Your task to perform on an android device: open app "Skype" Image 0: 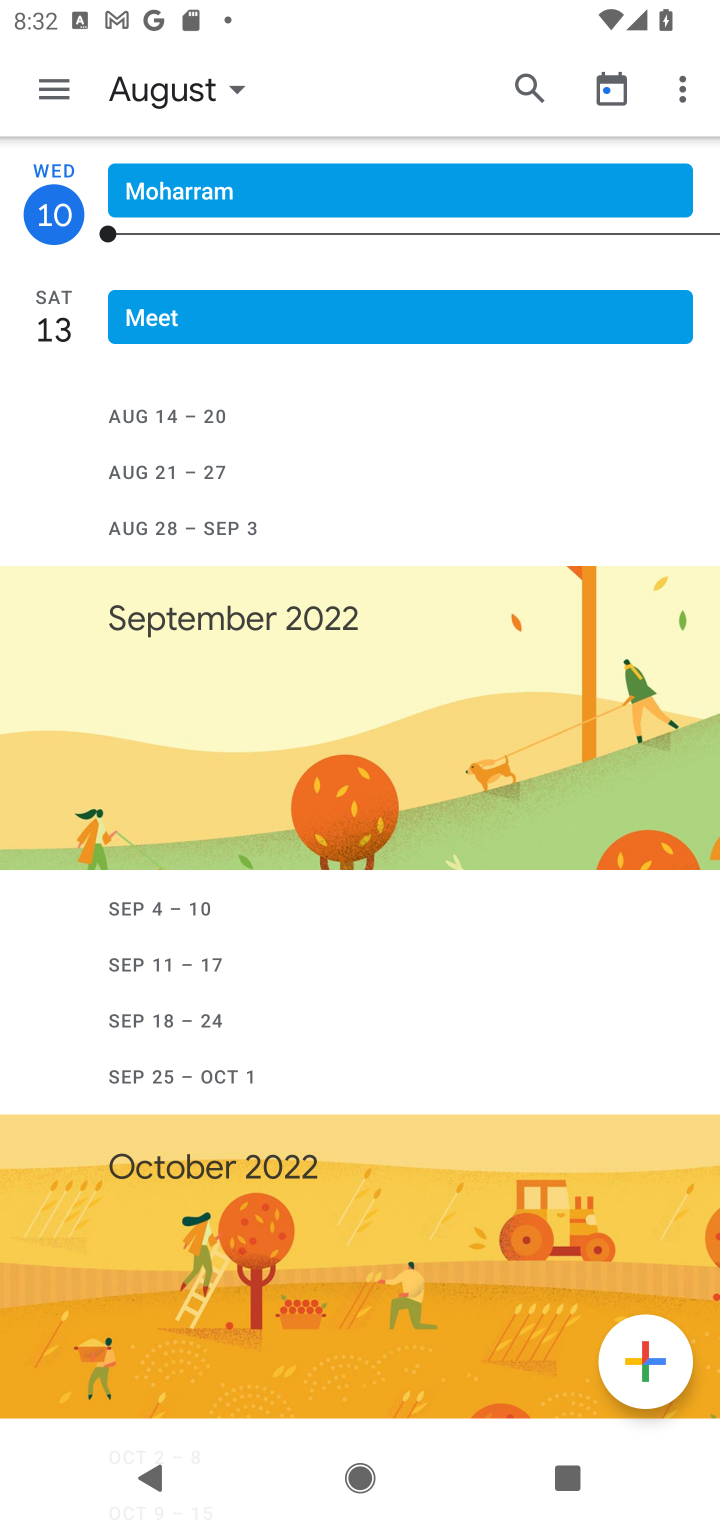
Step 0: press home button
Your task to perform on an android device: open app "Skype" Image 1: 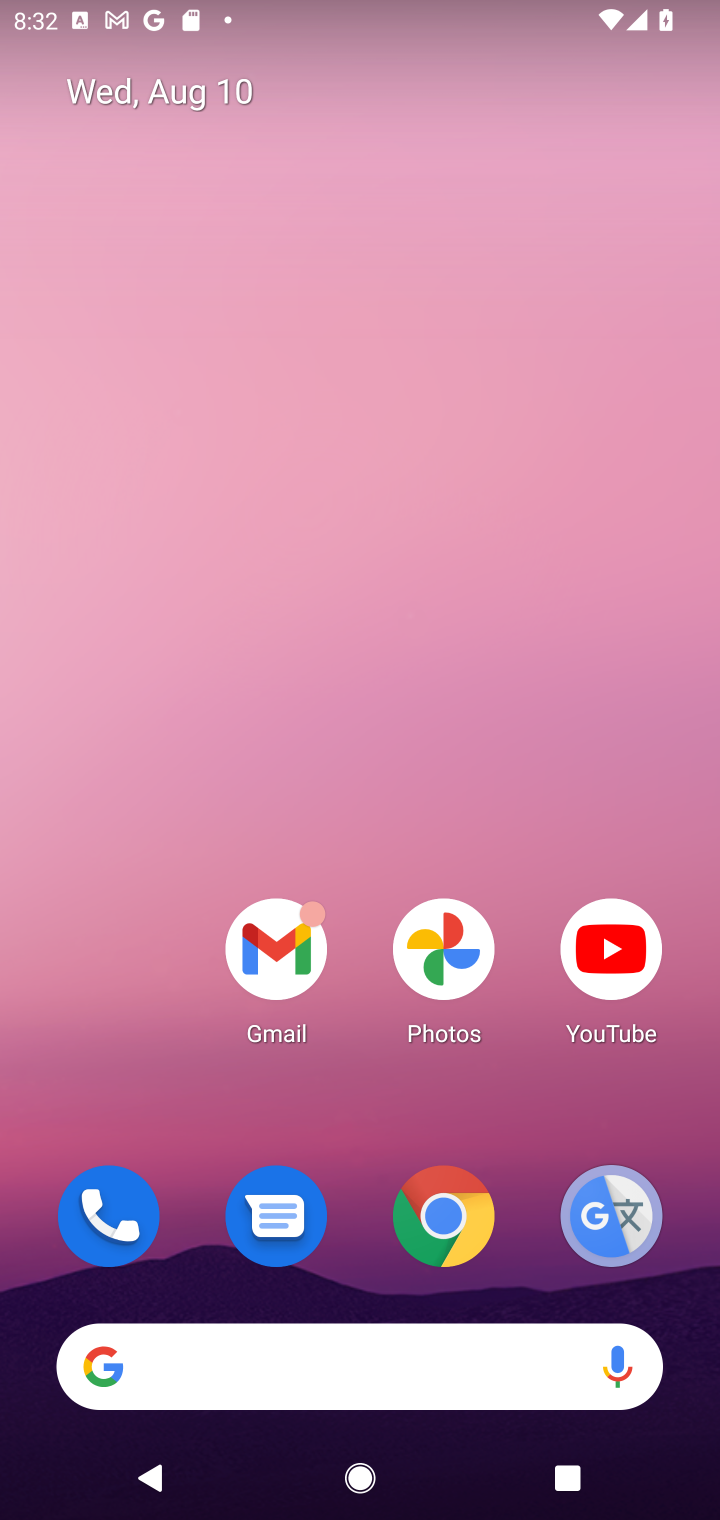
Step 1: drag from (224, 1127) to (373, 193)
Your task to perform on an android device: open app "Skype" Image 2: 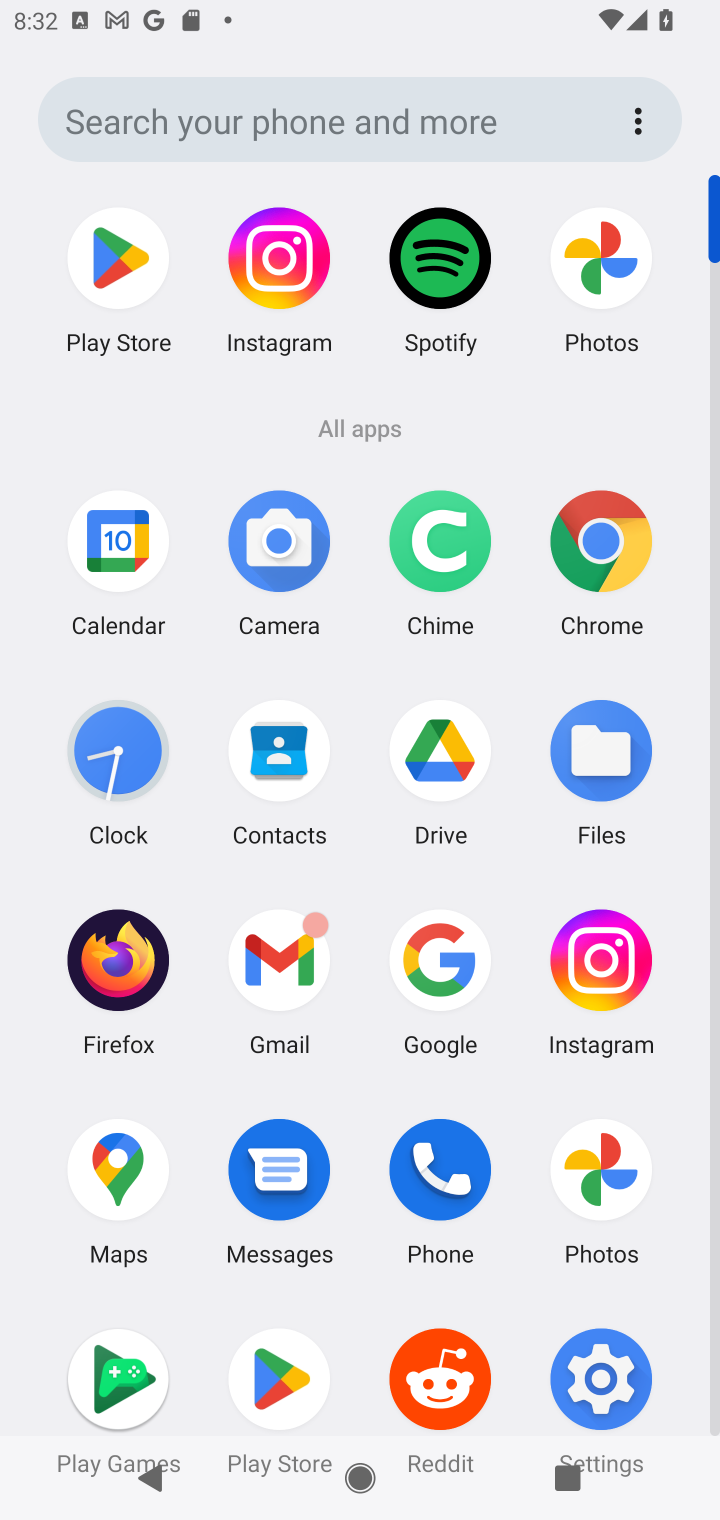
Step 2: click (130, 247)
Your task to perform on an android device: open app "Skype" Image 3: 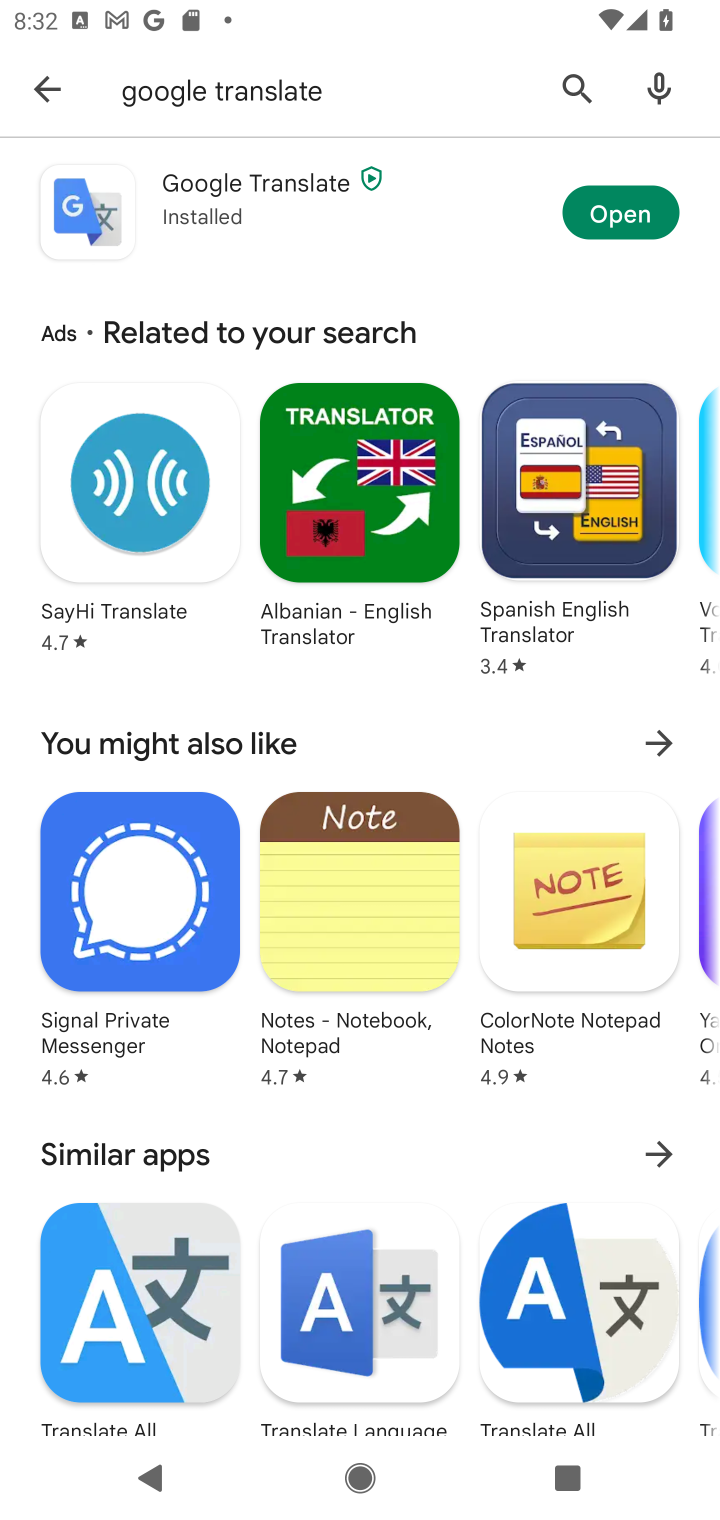
Step 3: click (572, 85)
Your task to perform on an android device: open app "Skype" Image 4: 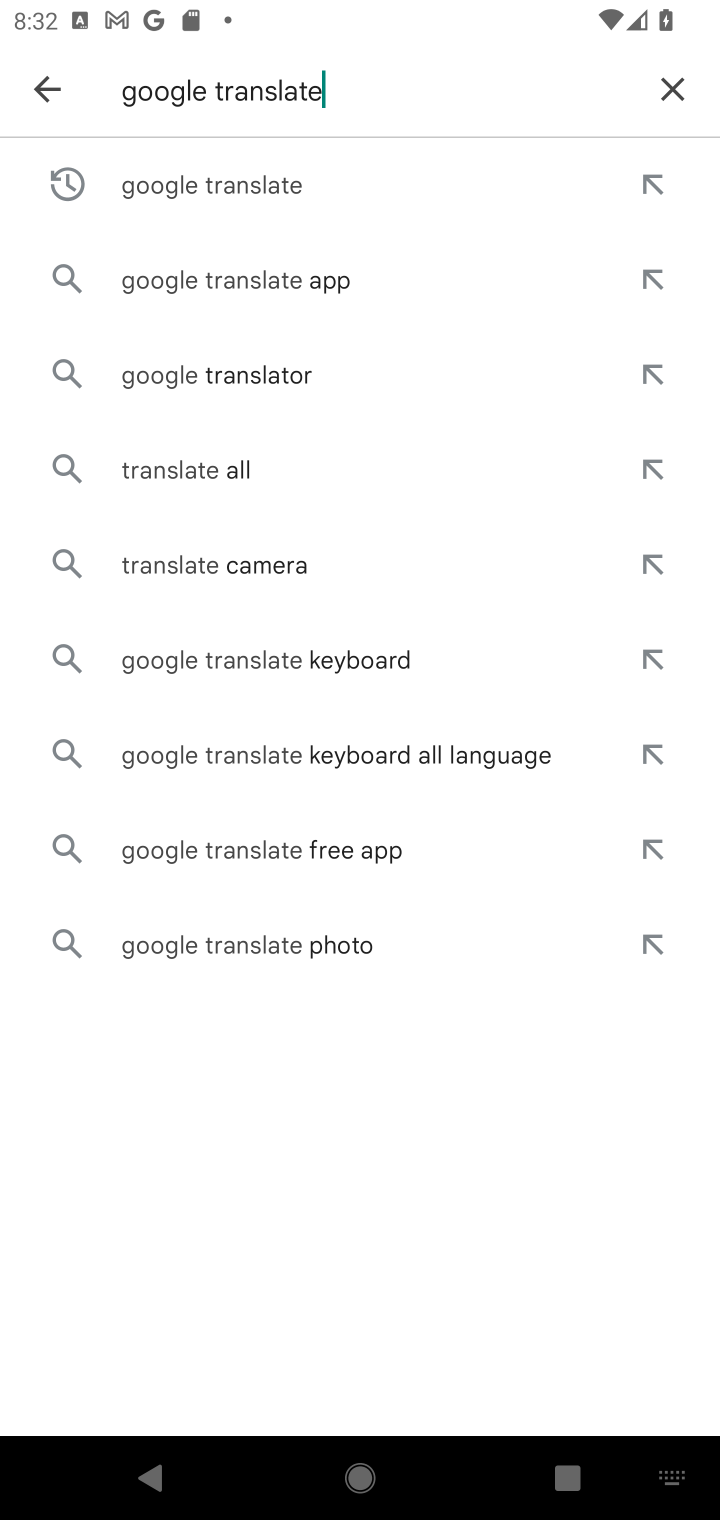
Step 4: click (677, 90)
Your task to perform on an android device: open app "Skype" Image 5: 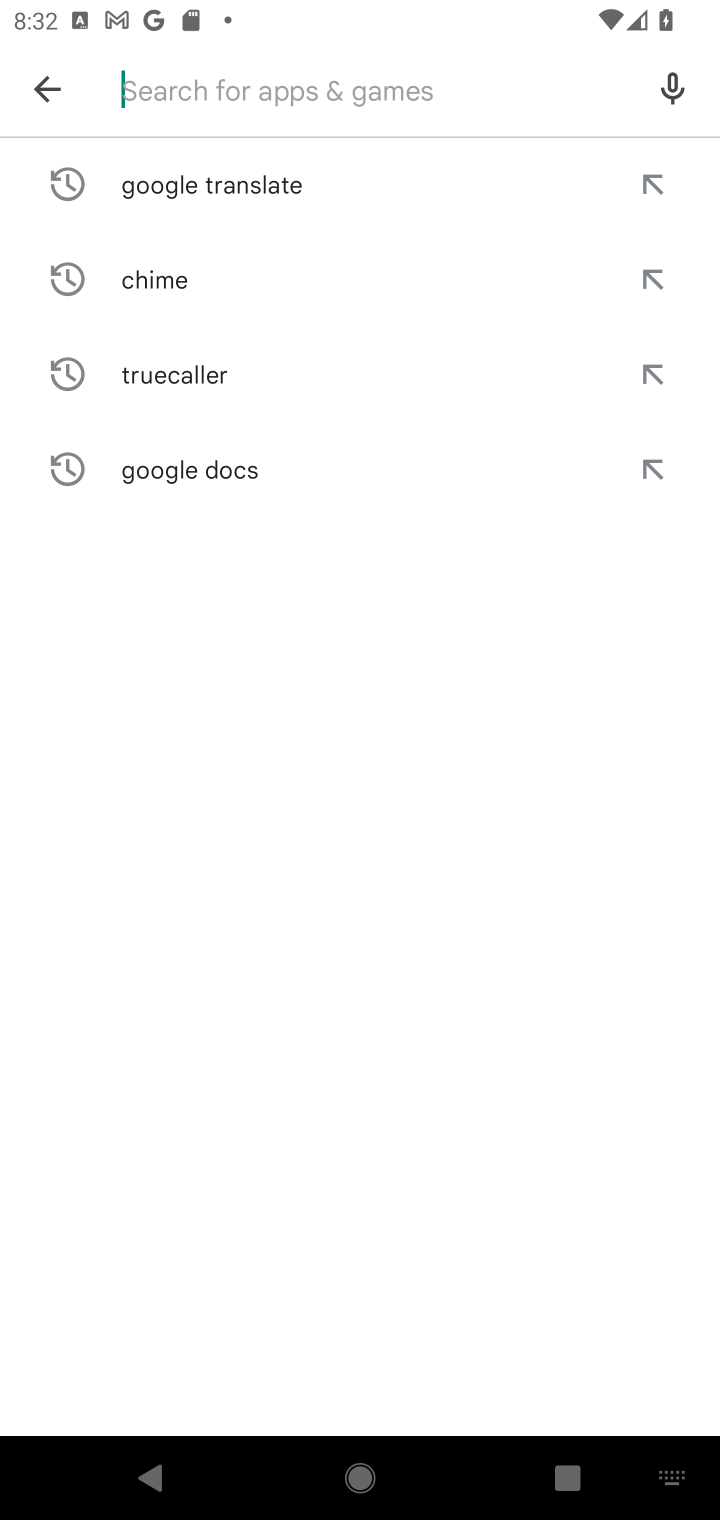
Step 5: click (177, 75)
Your task to perform on an android device: open app "Skype" Image 6: 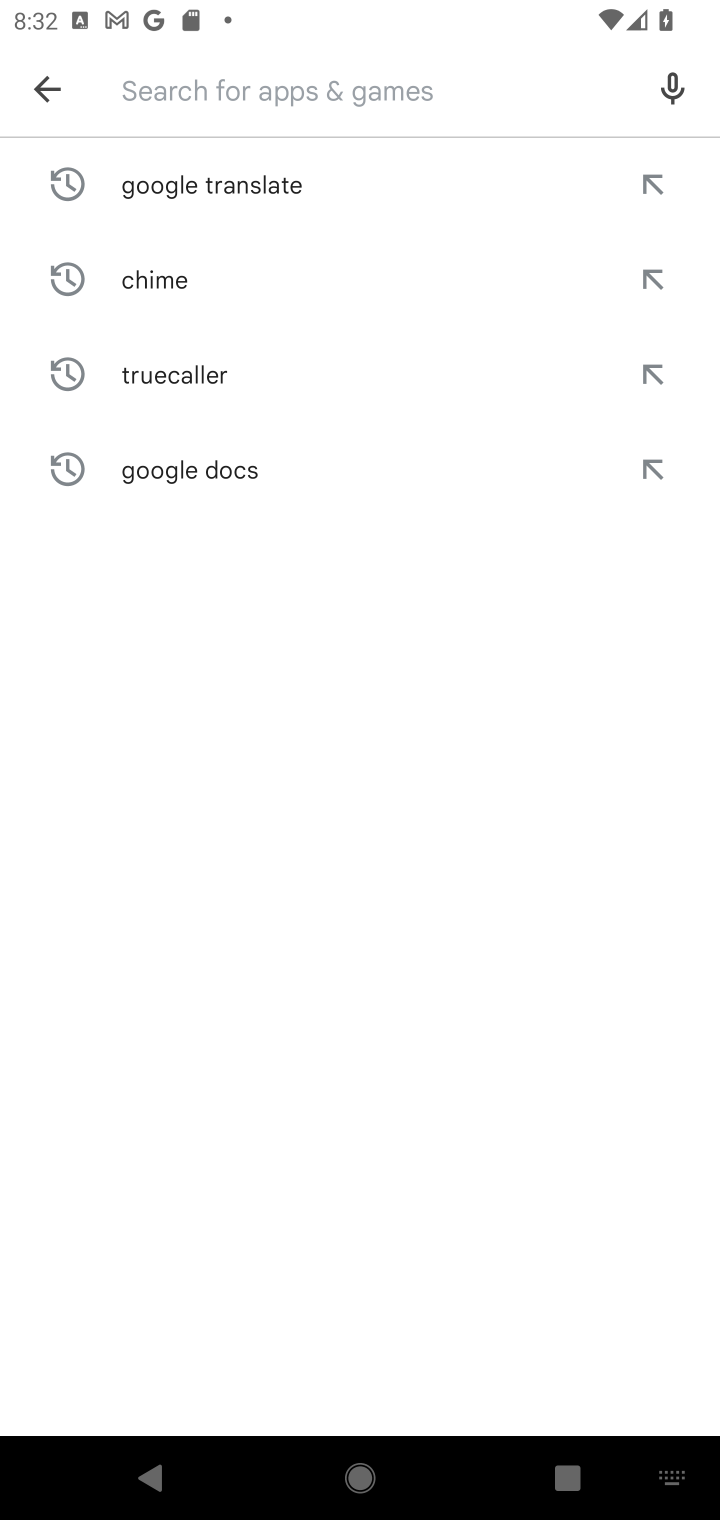
Step 6: click (286, 108)
Your task to perform on an android device: open app "Skype" Image 7: 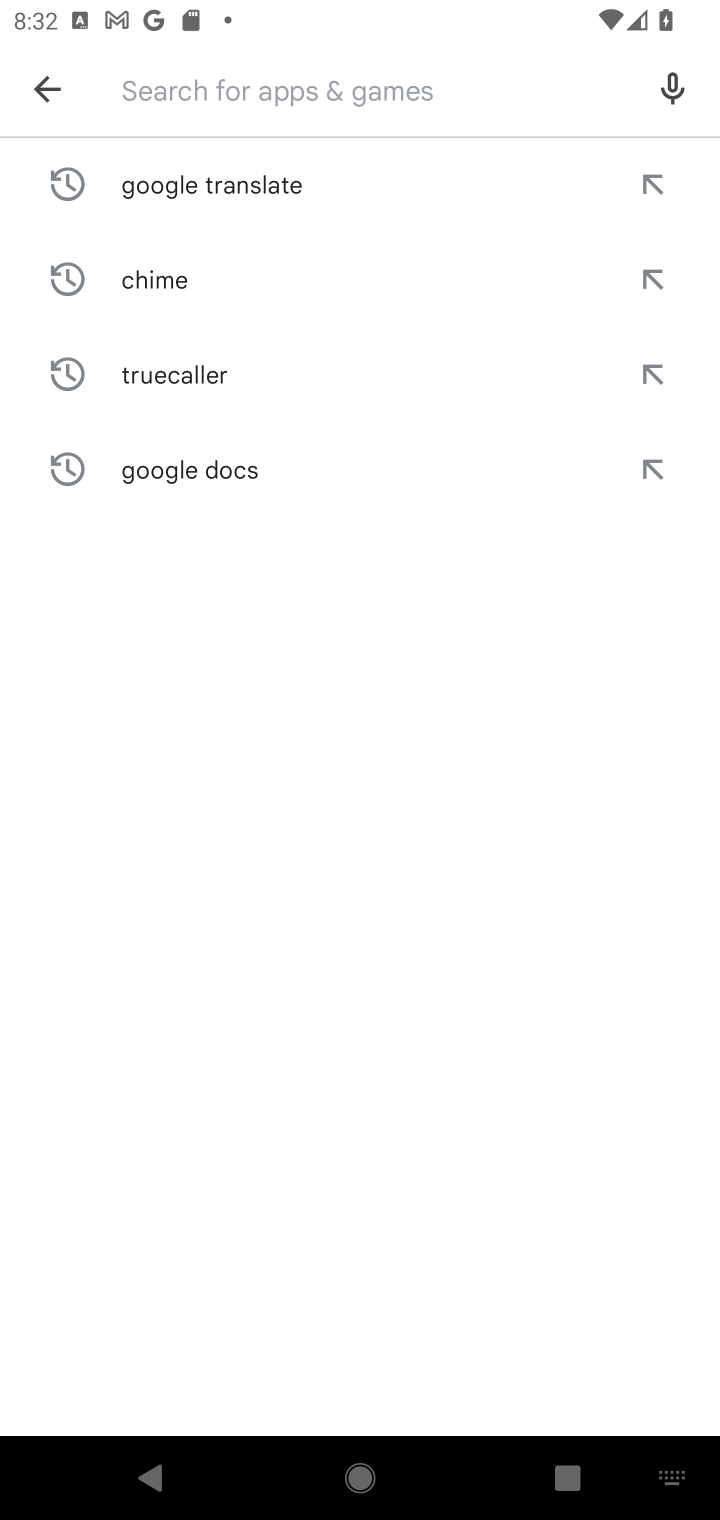
Step 7: type "Skype"
Your task to perform on an android device: open app "Skype" Image 8: 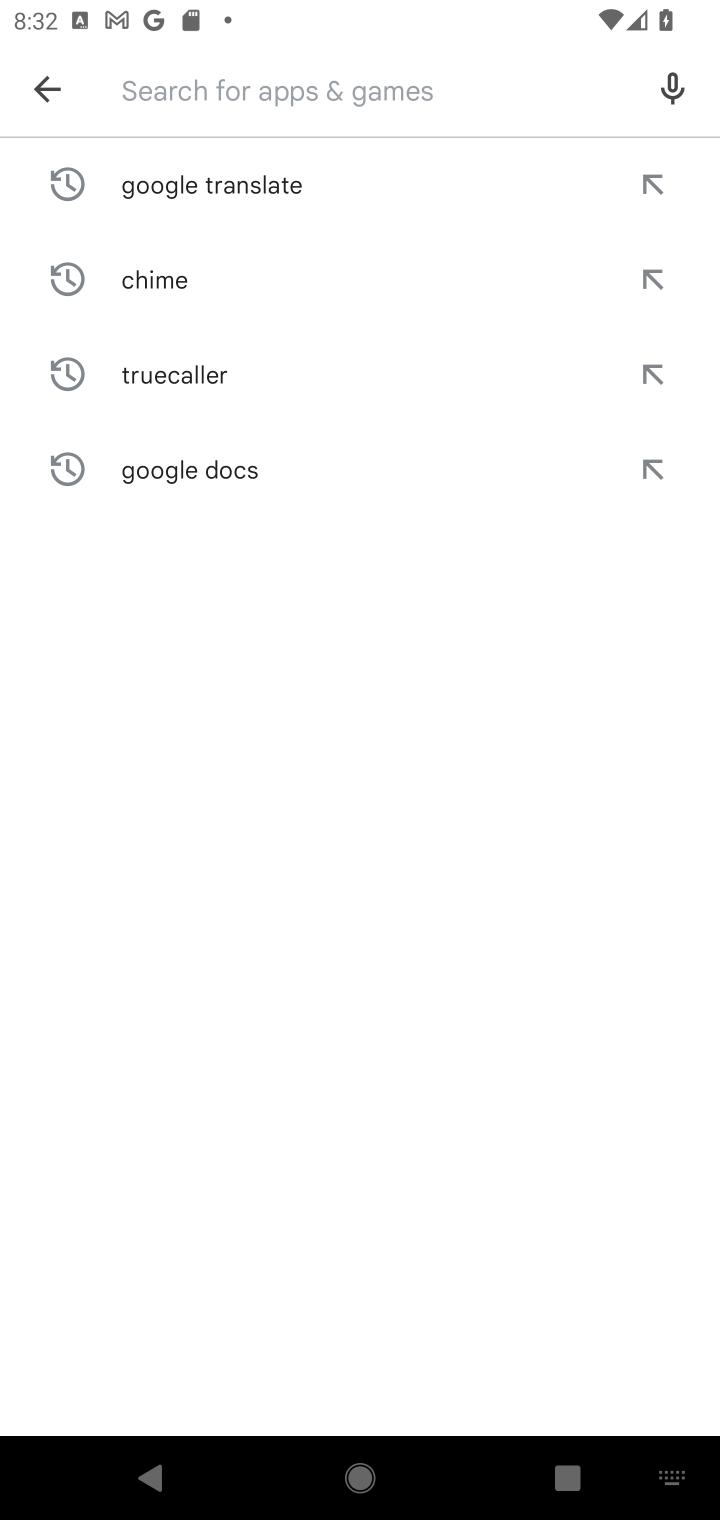
Step 8: click (448, 726)
Your task to perform on an android device: open app "Skype" Image 9: 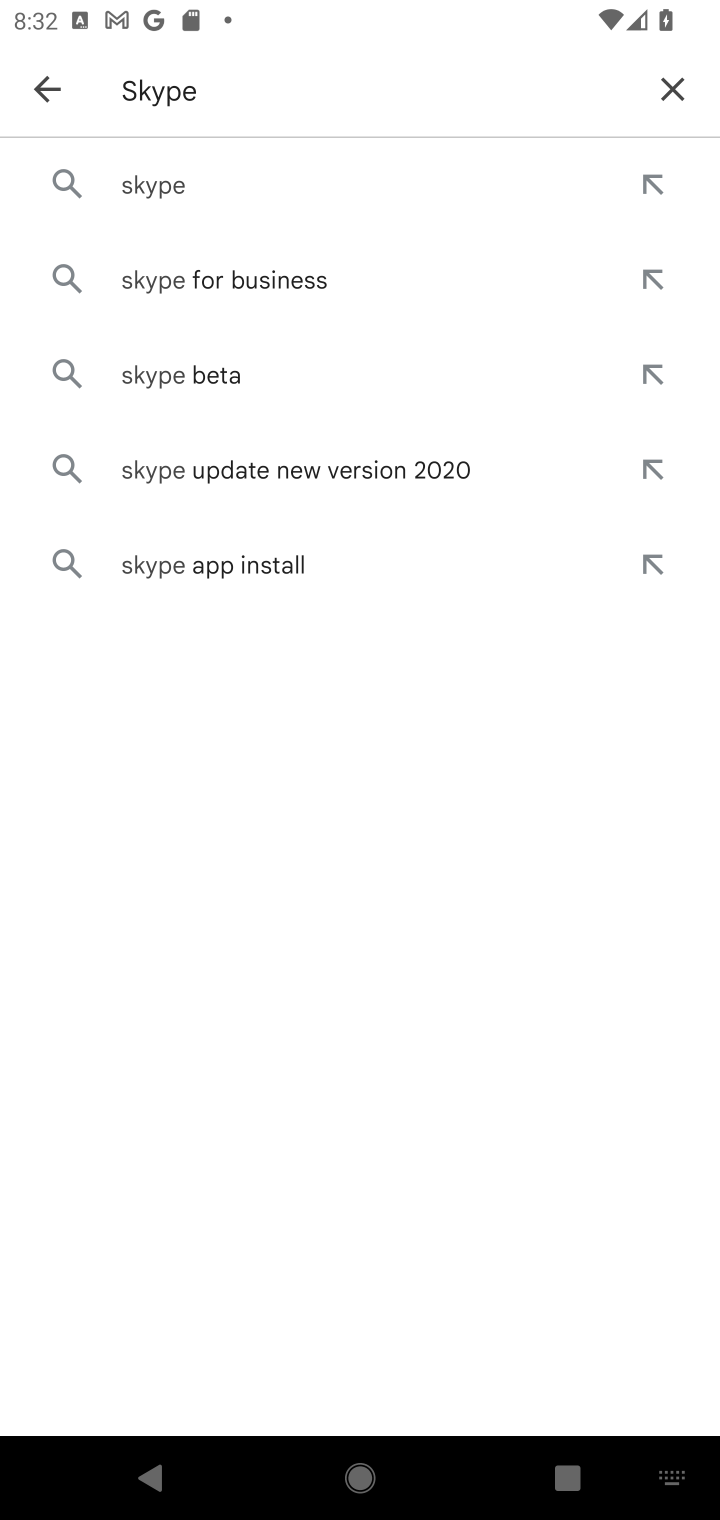
Step 9: click (165, 162)
Your task to perform on an android device: open app "Skype" Image 10: 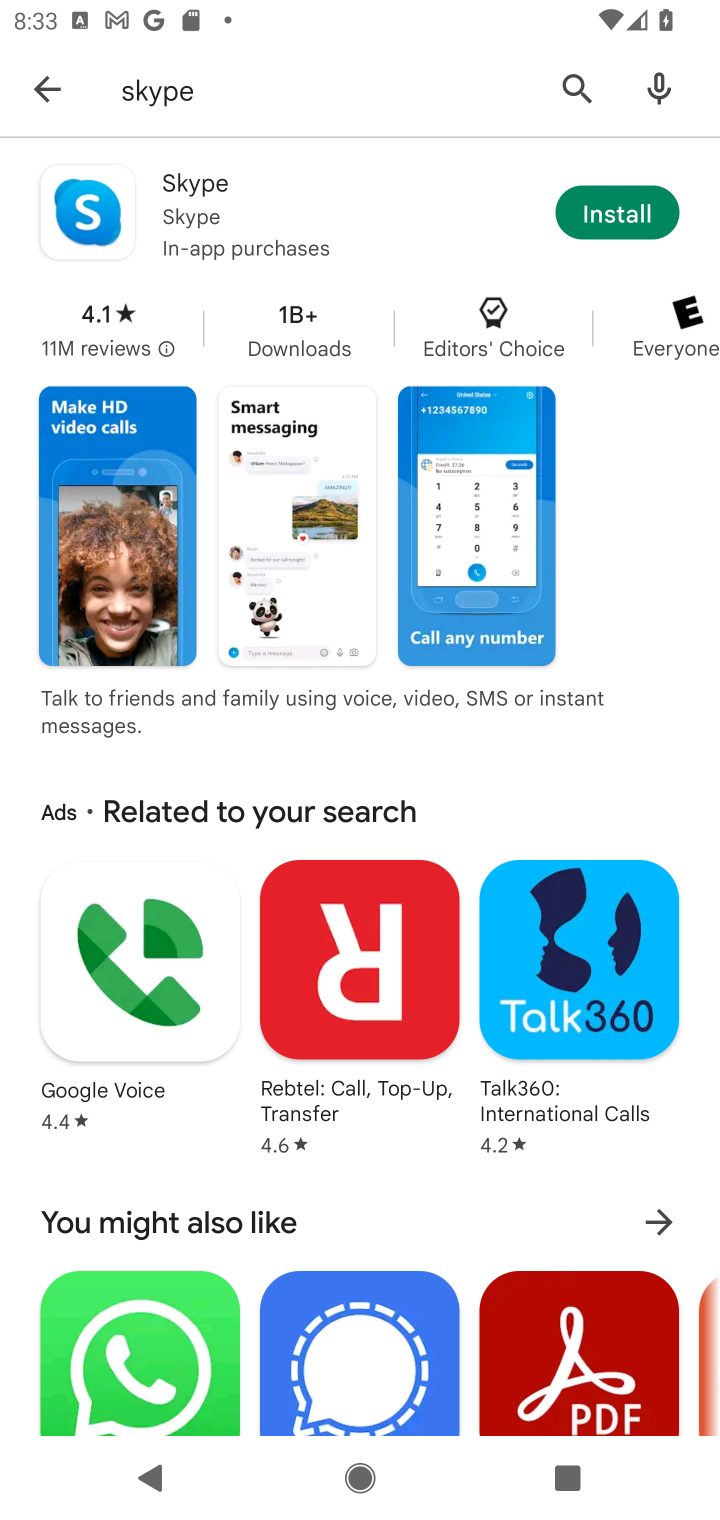
Step 10: task complete